Your task to perform on an android device: delete the emails in spam in the gmail app Image 0: 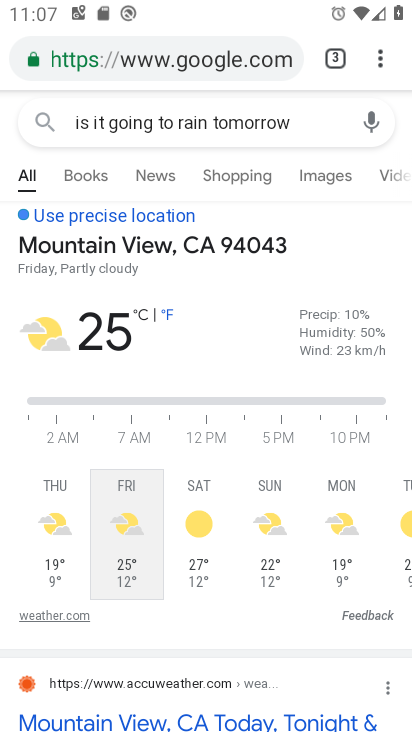
Step 0: press home button
Your task to perform on an android device: delete the emails in spam in the gmail app Image 1: 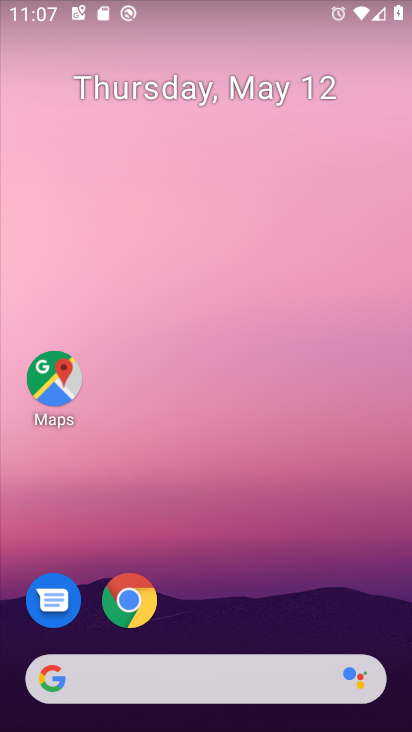
Step 1: drag from (220, 587) to (91, 109)
Your task to perform on an android device: delete the emails in spam in the gmail app Image 2: 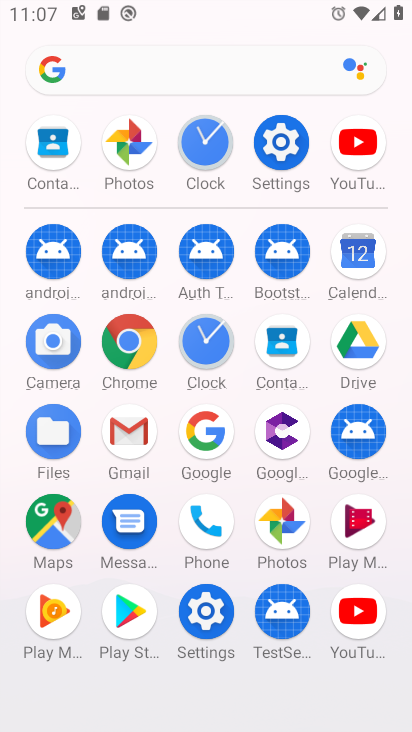
Step 2: click (132, 440)
Your task to perform on an android device: delete the emails in spam in the gmail app Image 3: 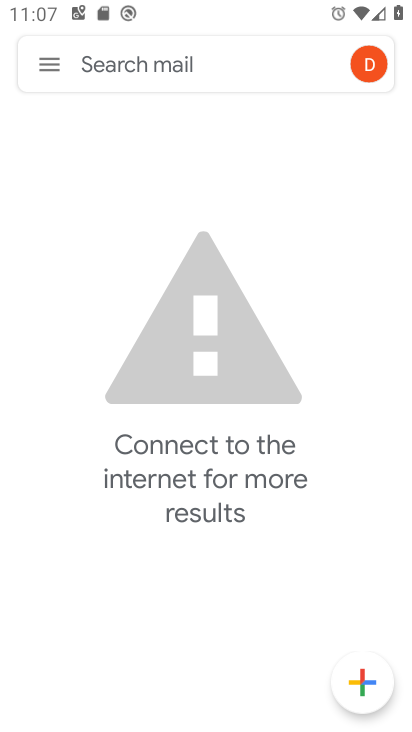
Step 3: click (44, 68)
Your task to perform on an android device: delete the emails in spam in the gmail app Image 4: 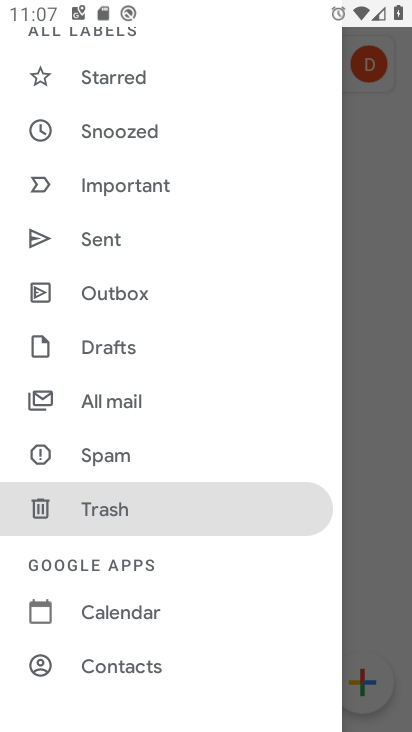
Step 4: drag from (244, 194) to (201, 700)
Your task to perform on an android device: delete the emails in spam in the gmail app Image 5: 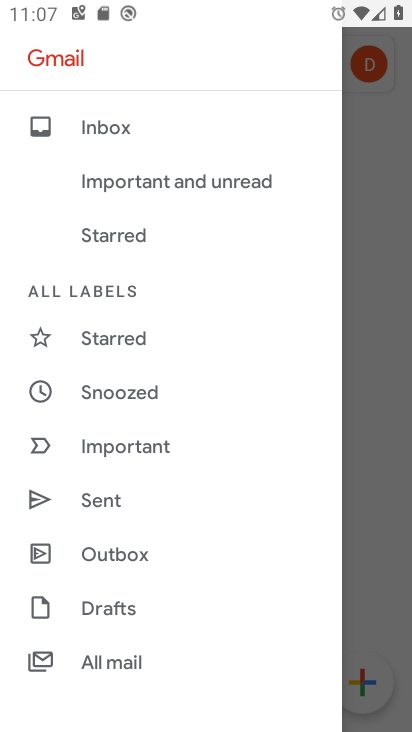
Step 5: drag from (99, 665) to (67, 333)
Your task to perform on an android device: delete the emails in spam in the gmail app Image 6: 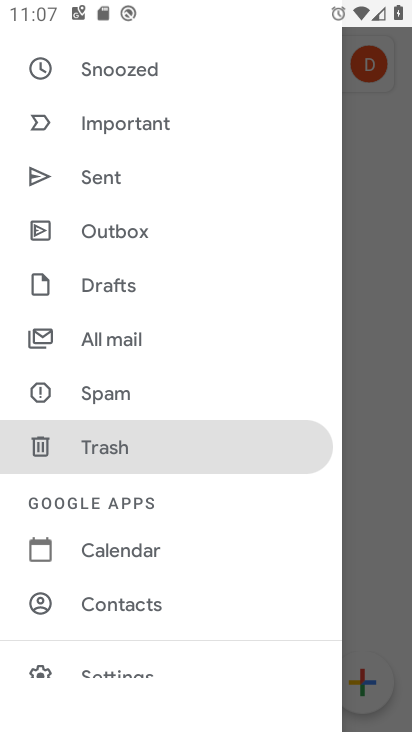
Step 6: click (90, 390)
Your task to perform on an android device: delete the emails in spam in the gmail app Image 7: 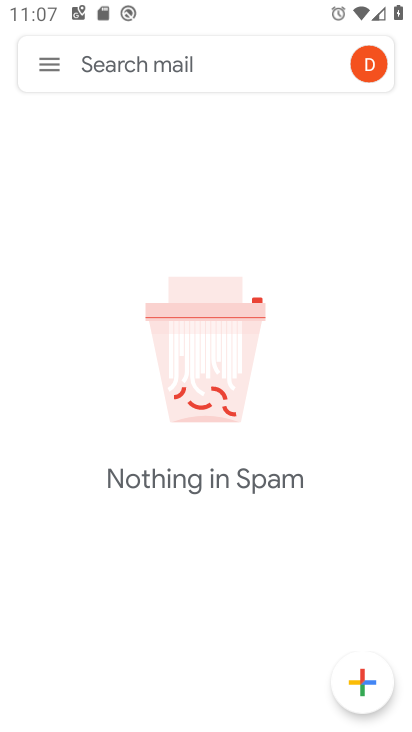
Step 7: task complete